Your task to perform on an android device: turn on sleep mode Image 0: 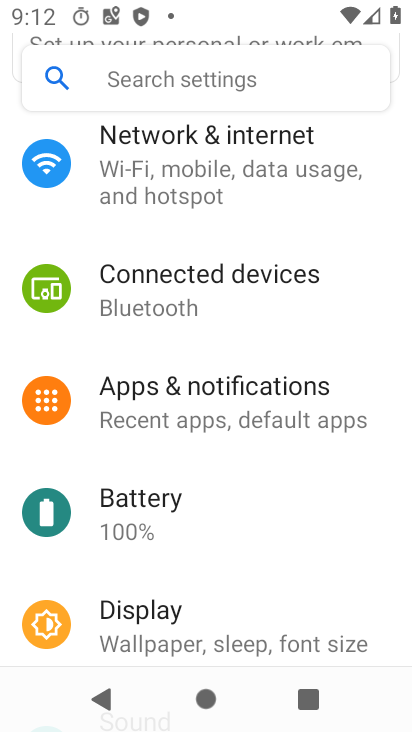
Step 0: press home button
Your task to perform on an android device: turn on sleep mode Image 1: 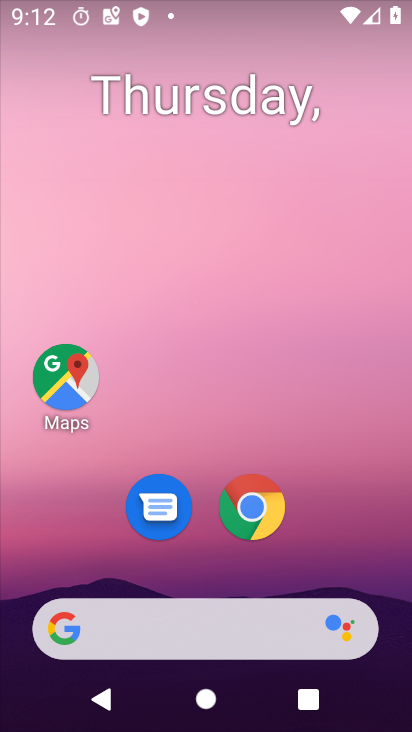
Step 1: drag from (184, 573) to (206, 2)
Your task to perform on an android device: turn on sleep mode Image 2: 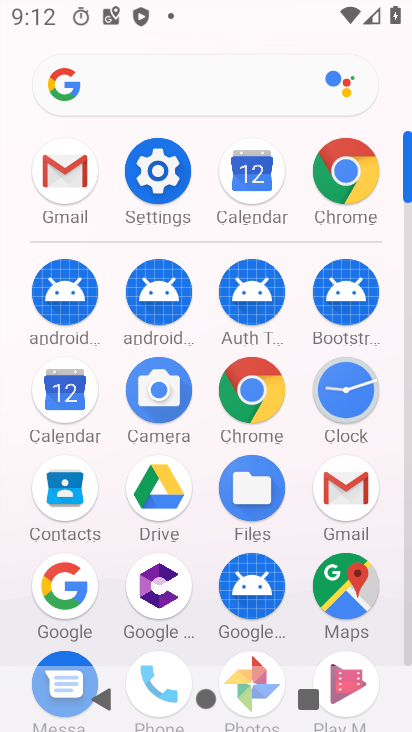
Step 2: click (161, 166)
Your task to perform on an android device: turn on sleep mode Image 3: 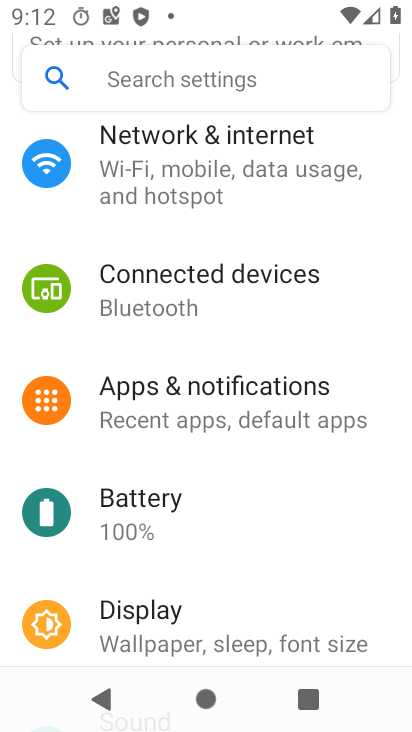
Step 3: click (234, 66)
Your task to perform on an android device: turn on sleep mode Image 4: 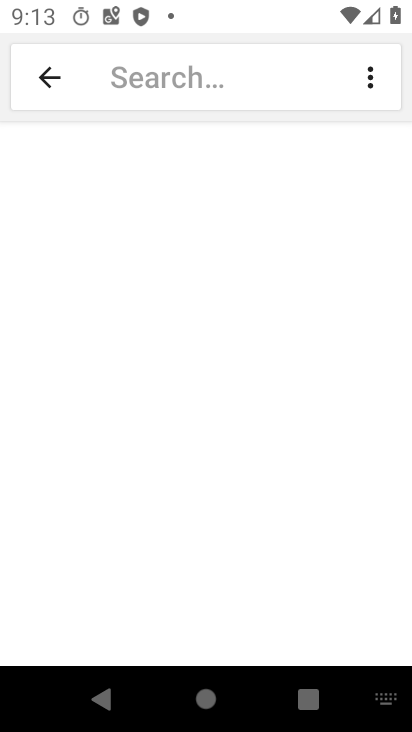
Step 4: type "sleep mode"
Your task to perform on an android device: turn on sleep mode Image 5: 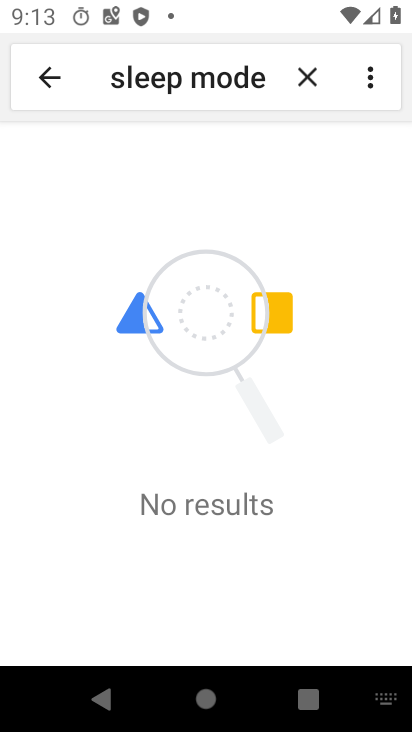
Step 5: task complete